Your task to perform on an android device: See recent photos Image 0: 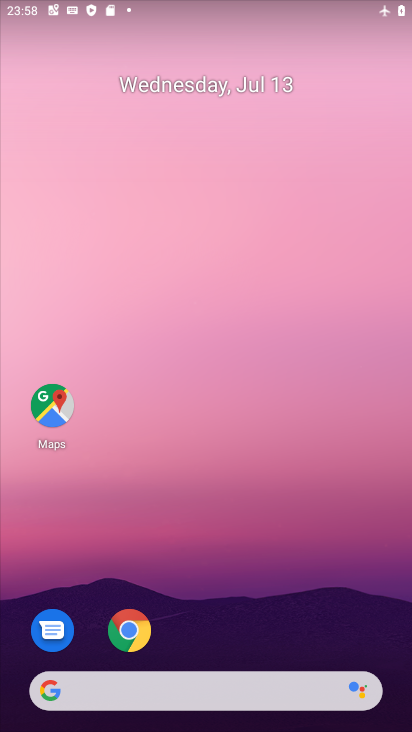
Step 0: drag from (279, 605) to (265, 298)
Your task to perform on an android device: See recent photos Image 1: 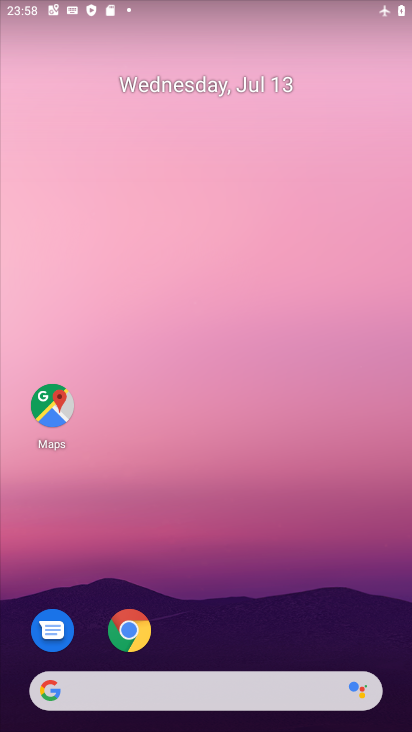
Step 1: drag from (314, 603) to (319, 104)
Your task to perform on an android device: See recent photos Image 2: 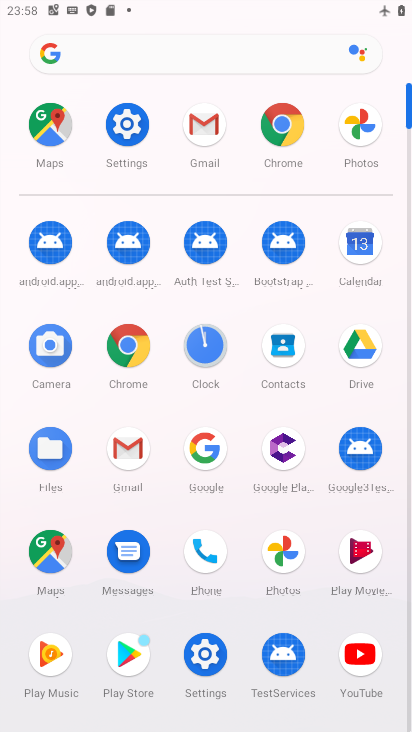
Step 2: click (359, 137)
Your task to perform on an android device: See recent photos Image 3: 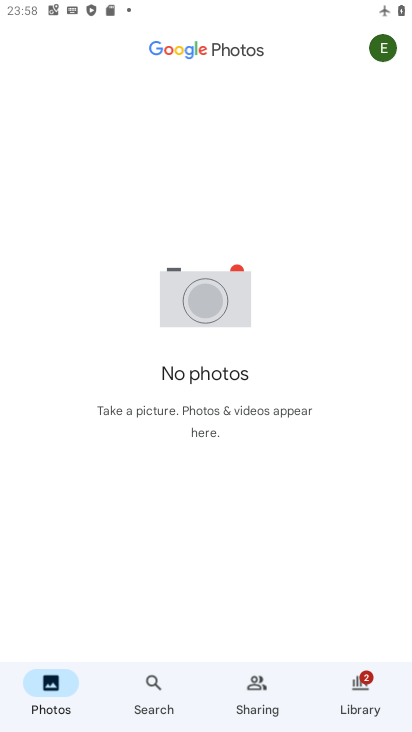
Step 3: task complete